Your task to perform on an android device: toggle translation in the chrome app Image 0: 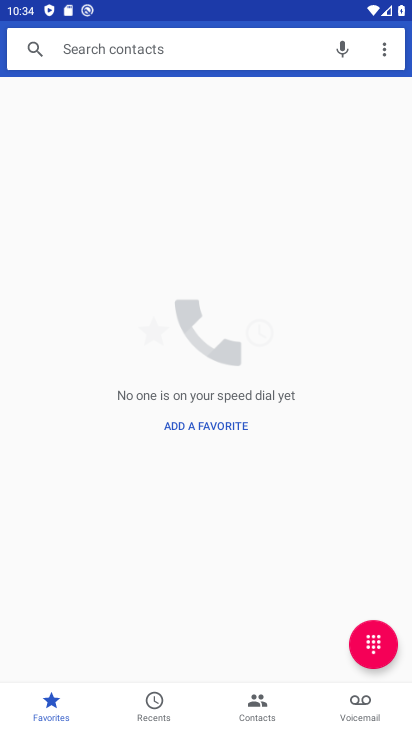
Step 0: press home button
Your task to perform on an android device: toggle translation in the chrome app Image 1: 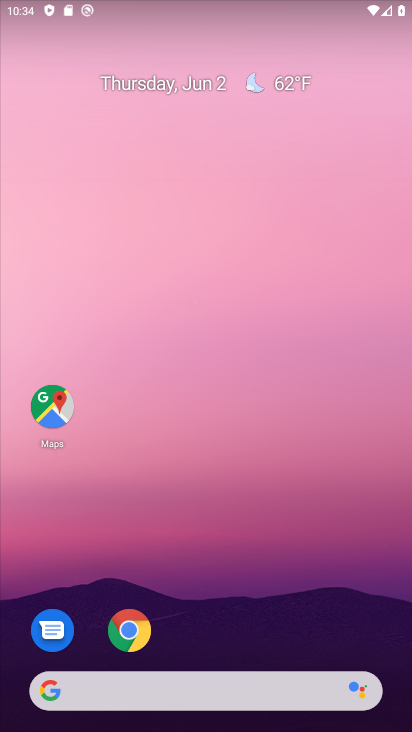
Step 1: click (131, 632)
Your task to perform on an android device: toggle translation in the chrome app Image 2: 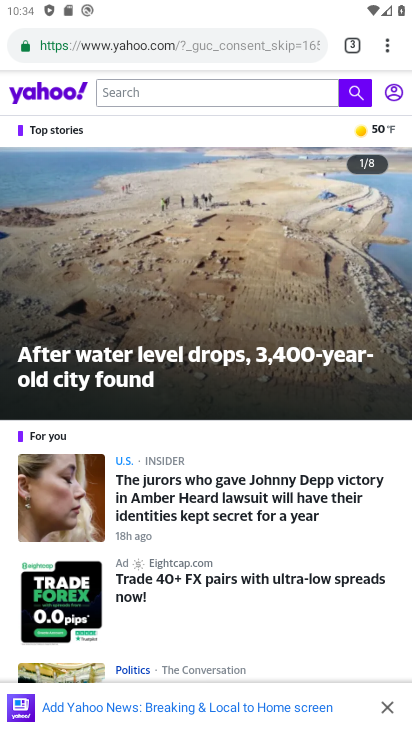
Step 2: drag from (384, 43) to (260, 542)
Your task to perform on an android device: toggle translation in the chrome app Image 3: 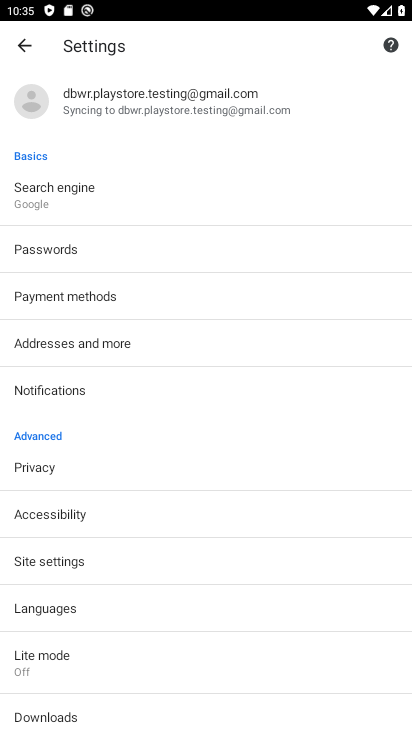
Step 3: click (92, 601)
Your task to perform on an android device: toggle translation in the chrome app Image 4: 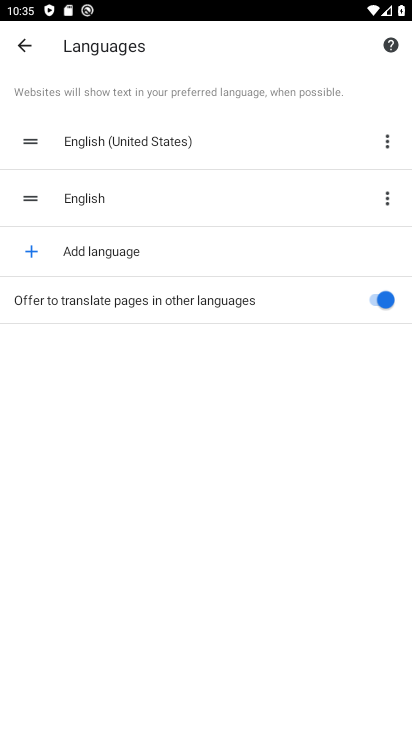
Step 4: click (373, 300)
Your task to perform on an android device: toggle translation in the chrome app Image 5: 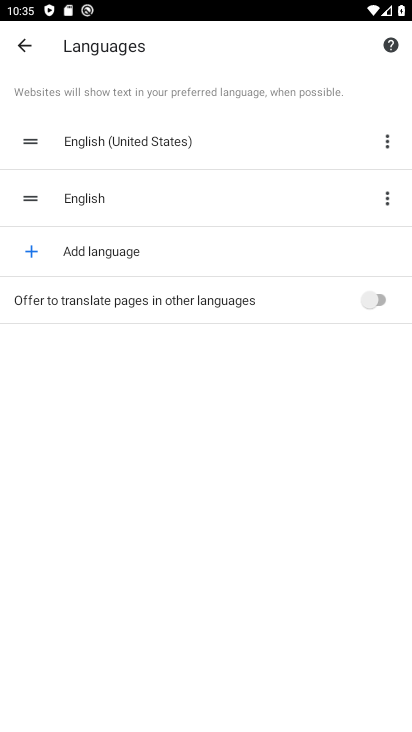
Step 5: task complete